Your task to perform on an android device: turn on airplane mode Image 0: 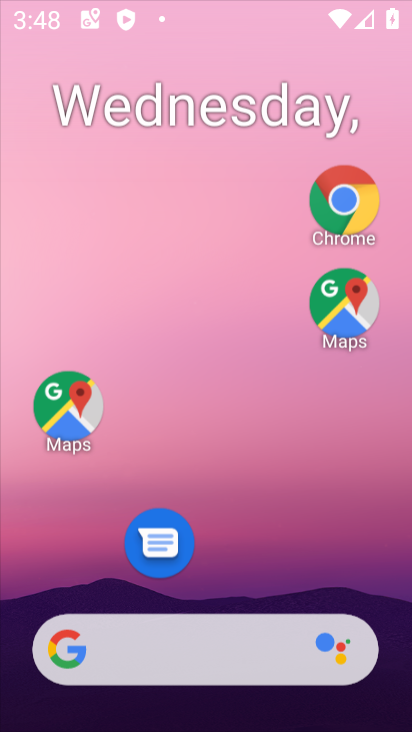
Step 0: click (403, 4)
Your task to perform on an android device: turn on airplane mode Image 1: 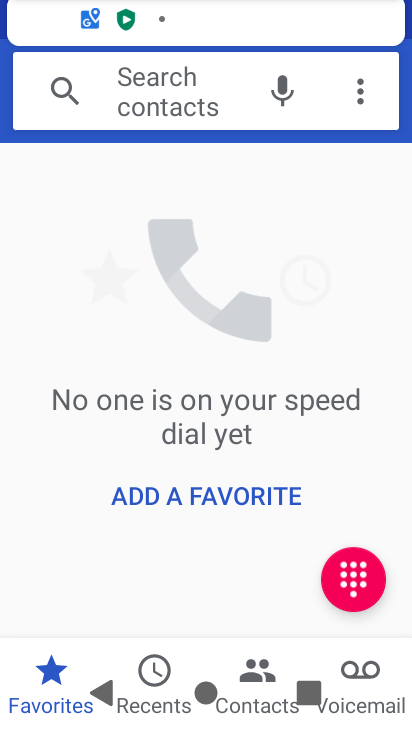
Step 1: press home button
Your task to perform on an android device: turn on airplane mode Image 2: 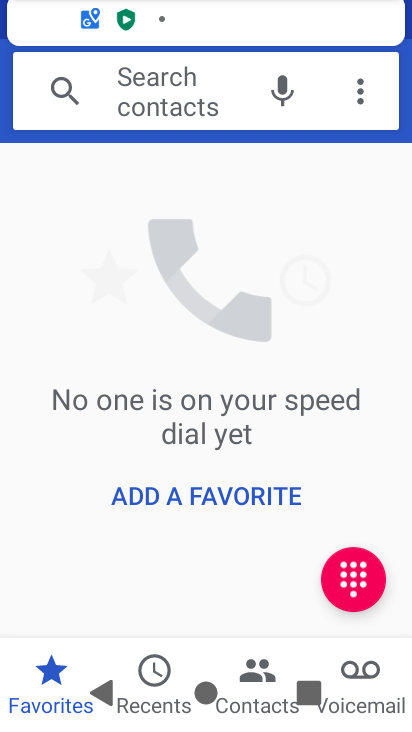
Step 2: drag from (403, 4) to (402, 560)
Your task to perform on an android device: turn on airplane mode Image 3: 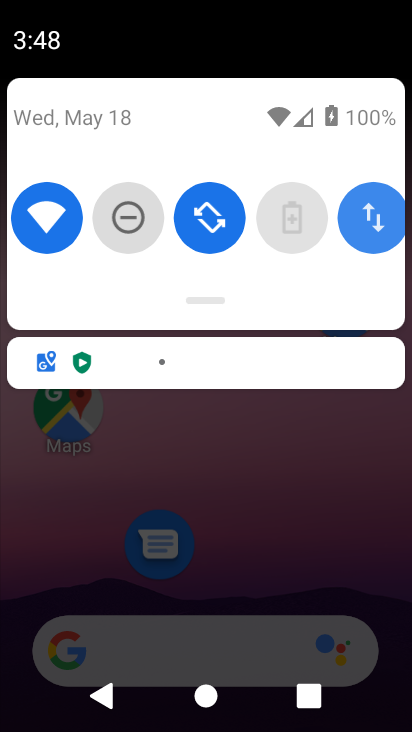
Step 3: drag from (251, 573) to (215, 38)
Your task to perform on an android device: turn on airplane mode Image 4: 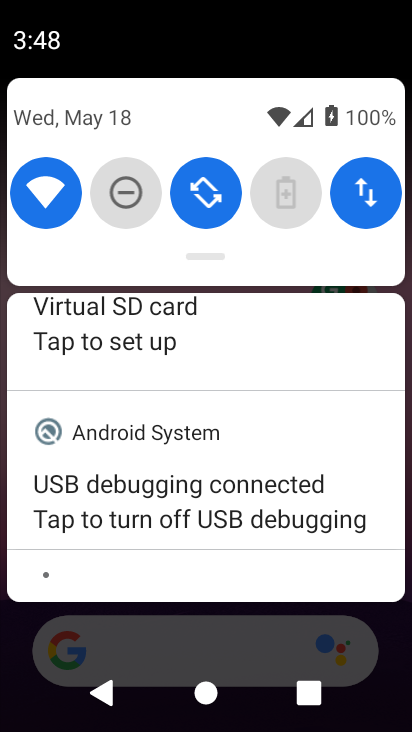
Step 4: press home button
Your task to perform on an android device: turn on airplane mode Image 5: 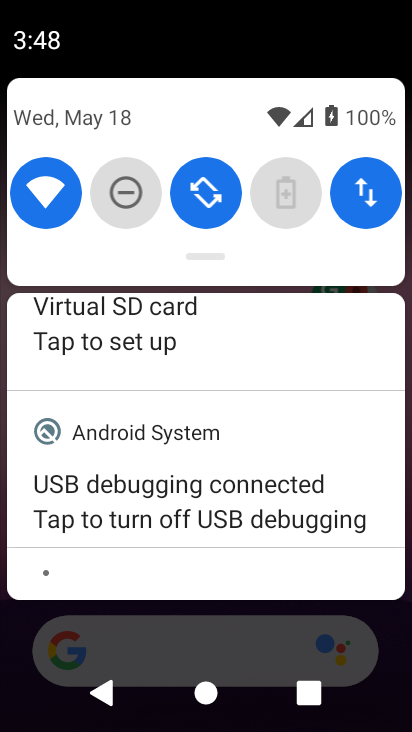
Step 5: drag from (215, 38) to (392, 473)
Your task to perform on an android device: turn on airplane mode Image 6: 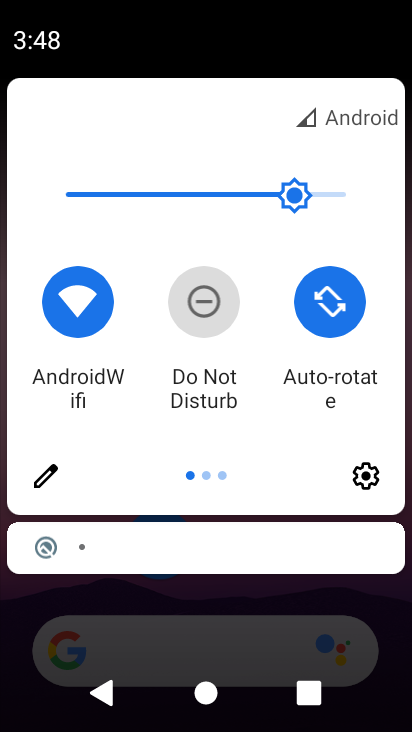
Step 6: press home button
Your task to perform on an android device: turn on airplane mode Image 7: 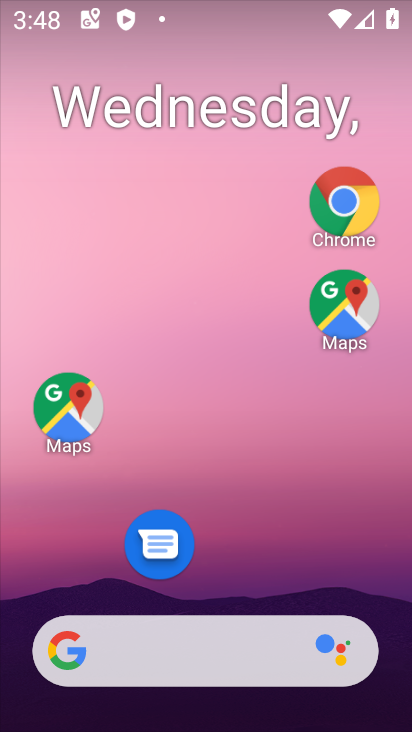
Step 7: drag from (233, 572) to (215, 28)
Your task to perform on an android device: turn on airplane mode Image 8: 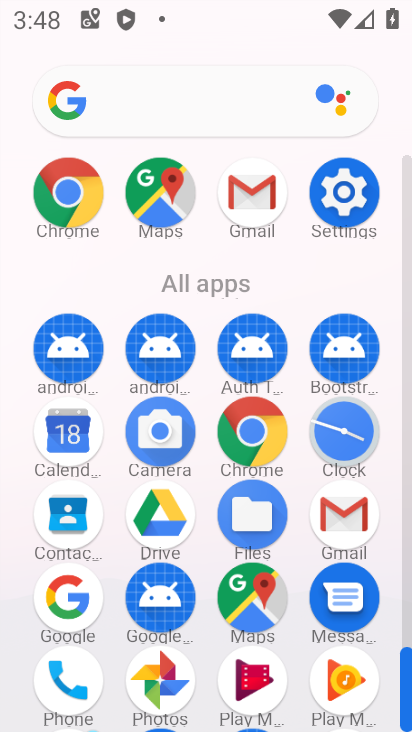
Step 8: click (345, 192)
Your task to perform on an android device: turn on airplane mode Image 9: 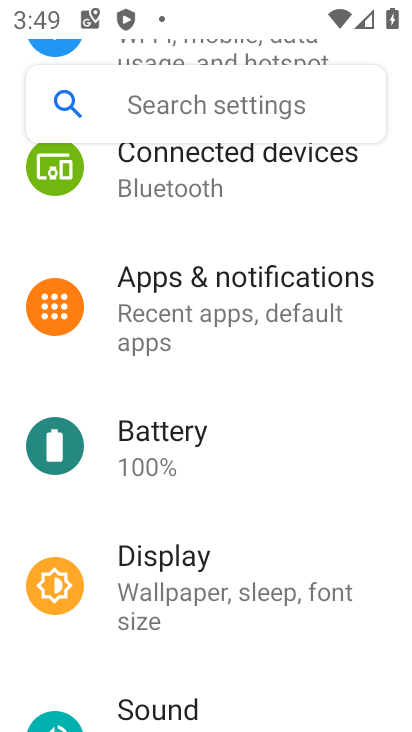
Step 9: drag from (160, 223) to (160, 473)
Your task to perform on an android device: turn on airplane mode Image 10: 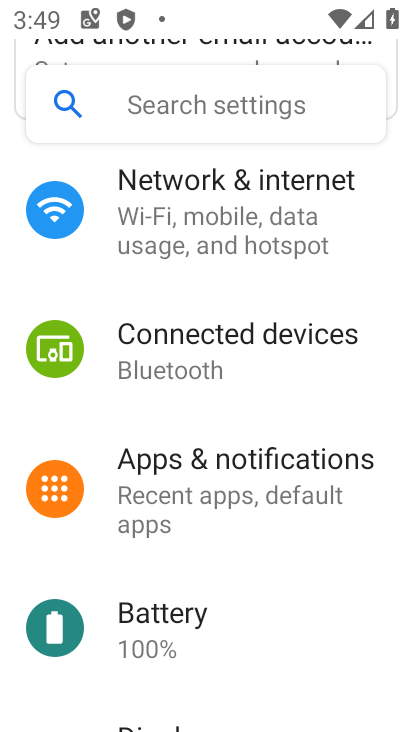
Step 10: click (232, 217)
Your task to perform on an android device: turn on airplane mode Image 11: 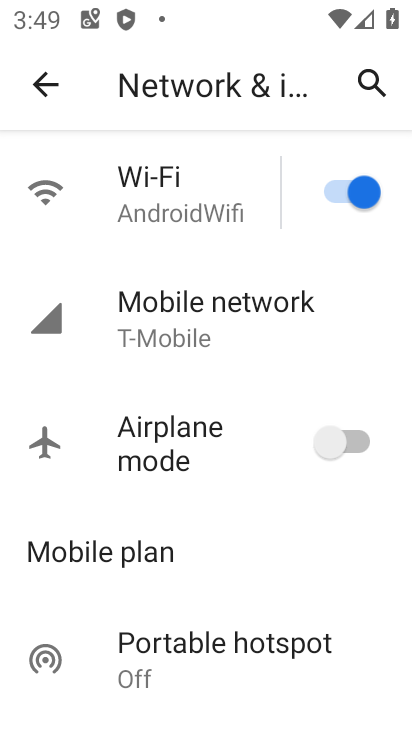
Step 11: click (365, 435)
Your task to perform on an android device: turn on airplane mode Image 12: 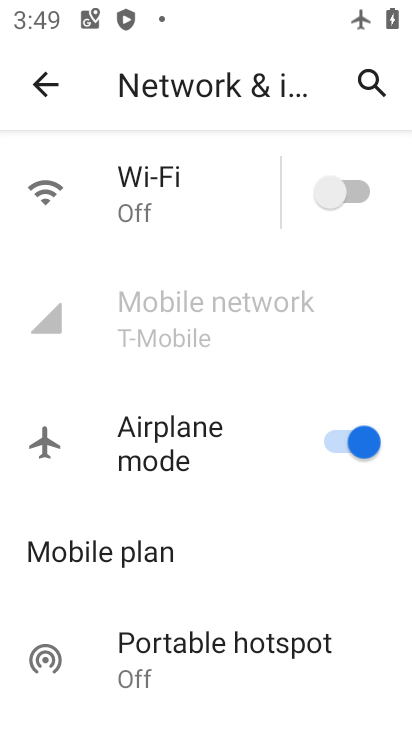
Step 12: task complete